Your task to perform on an android device: turn on priority inbox in the gmail app Image 0: 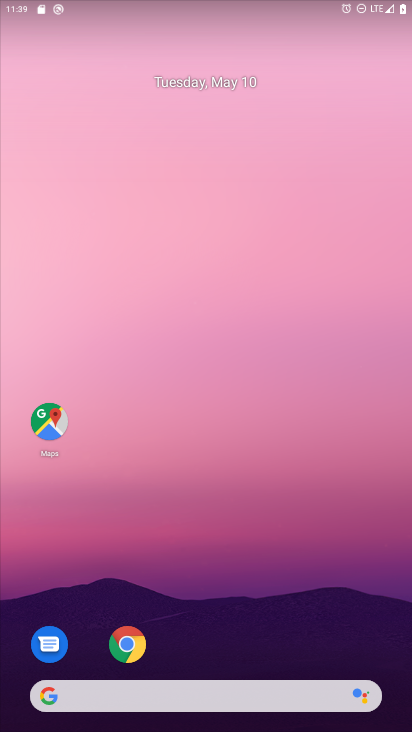
Step 0: drag from (201, 553) to (165, 235)
Your task to perform on an android device: turn on priority inbox in the gmail app Image 1: 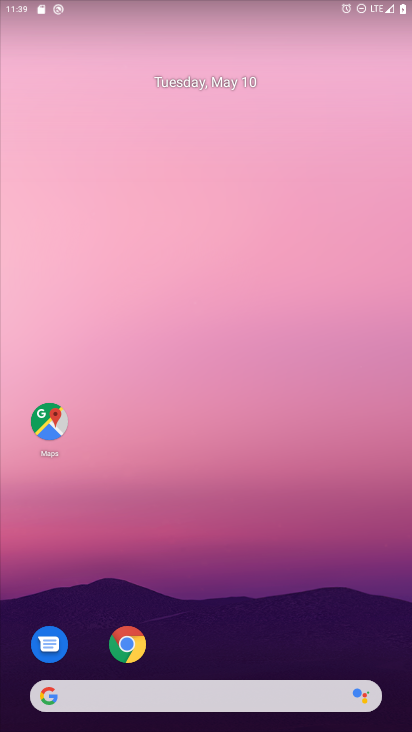
Step 1: drag from (209, 512) to (276, 5)
Your task to perform on an android device: turn on priority inbox in the gmail app Image 2: 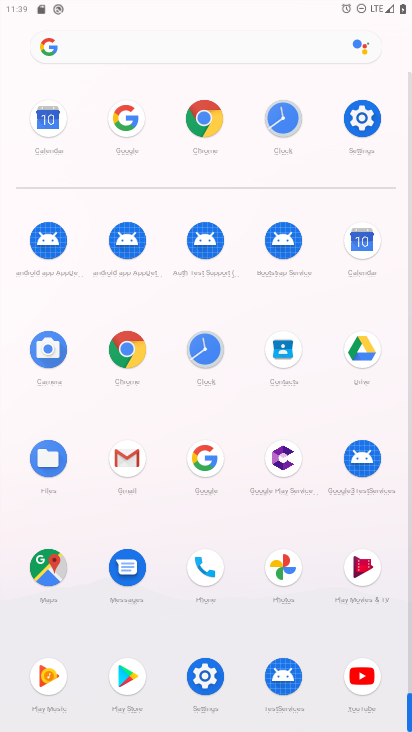
Step 2: click (124, 476)
Your task to perform on an android device: turn on priority inbox in the gmail app Image 3: 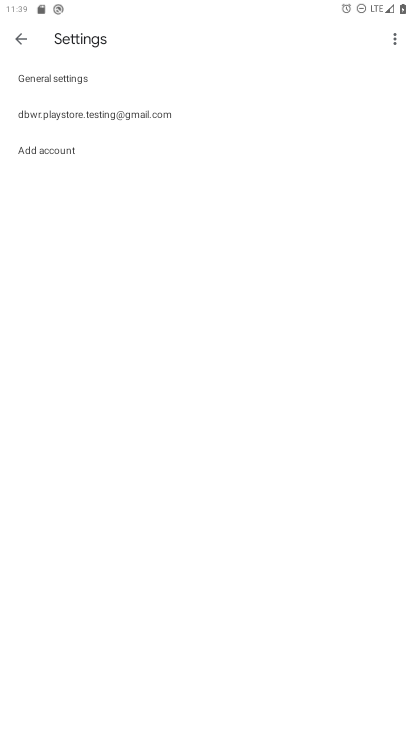
Step 3: click (146, 111)
Your task to perform on an android device: turn on priority inbox in the gmail app Image 4: 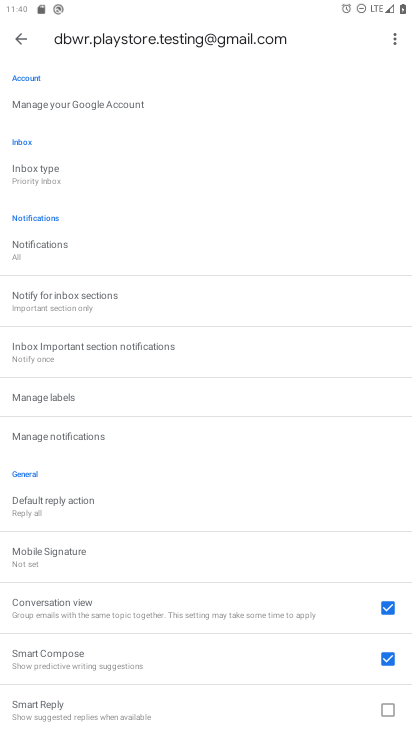
Step 4: click (71, 179)
Your task to perform on an android device: turn on priority inbox in the gmail app Image 5: 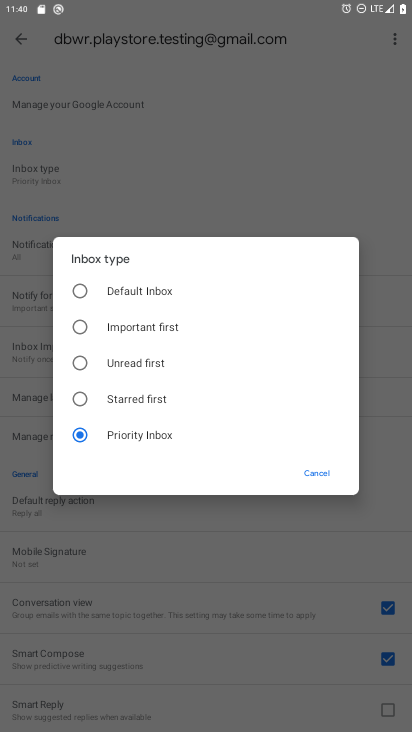
Step 5: task complete